Your task to perform on an android device: Go to calendar. Show me events next week Image 0: 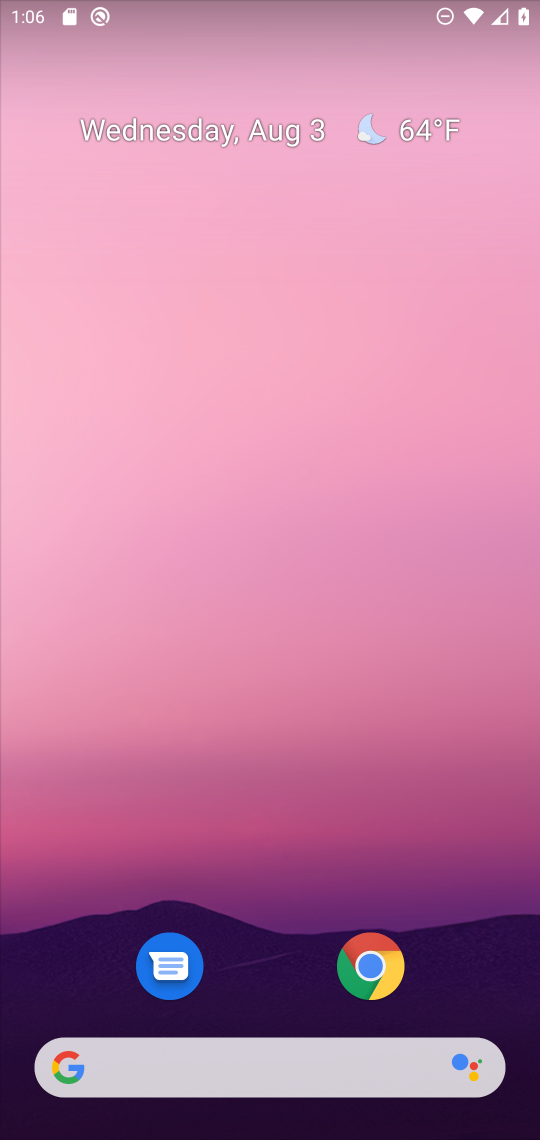
Step 0: drag from (245, 787) to (274, 63)
Your task to perform on an android device: Go to calendar. Show me events next week Image 1: 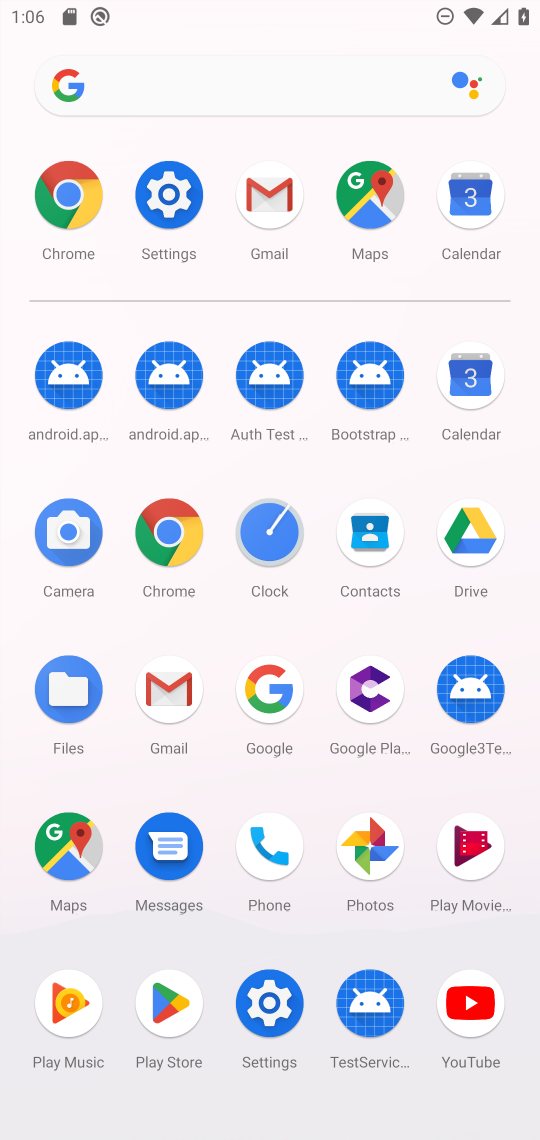
Step 1: click (482, 221)
Your task to perform on an android device: Go to calendar. Show me events next week Image 2: 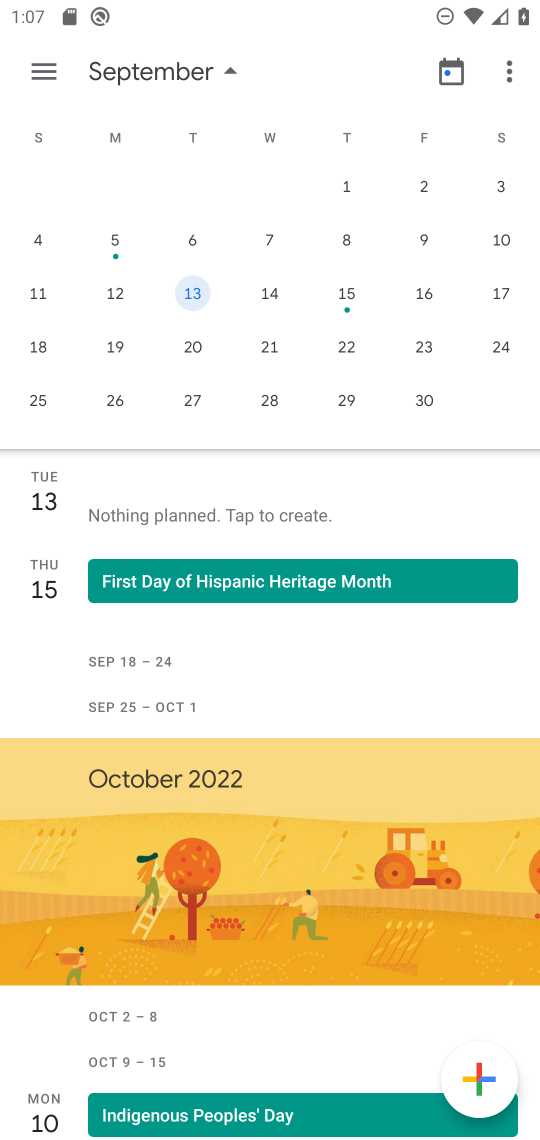
Step 2: drag from (107, 300) to (510, 306)
Your task to perform on an android device: Go to calendar. Show me events next week Image 3: 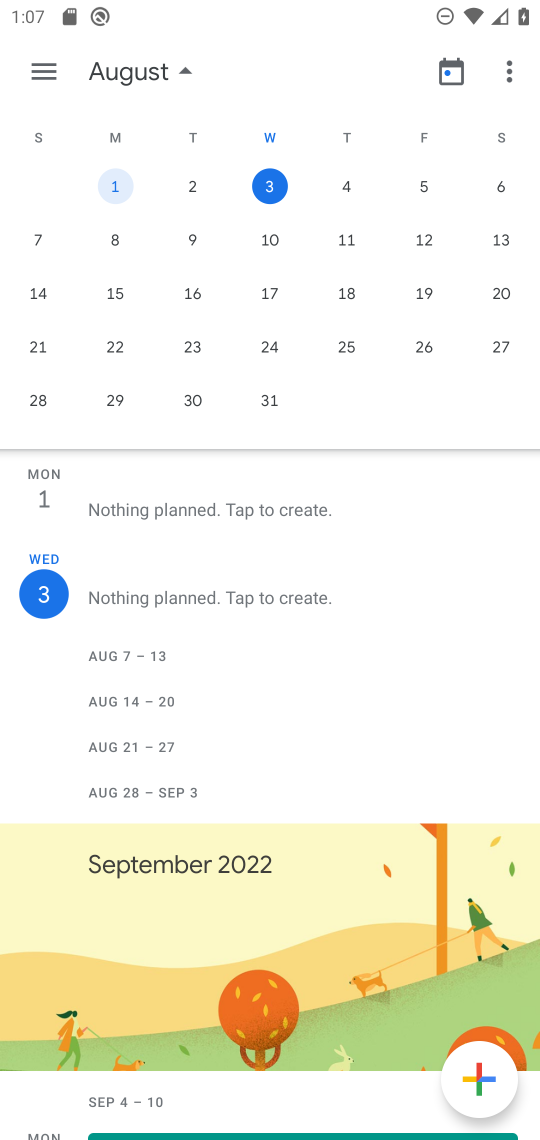
Step 3: click (29, 244)
Your task to perform on an android device: Go to calendar. Show me events next week Image 4: 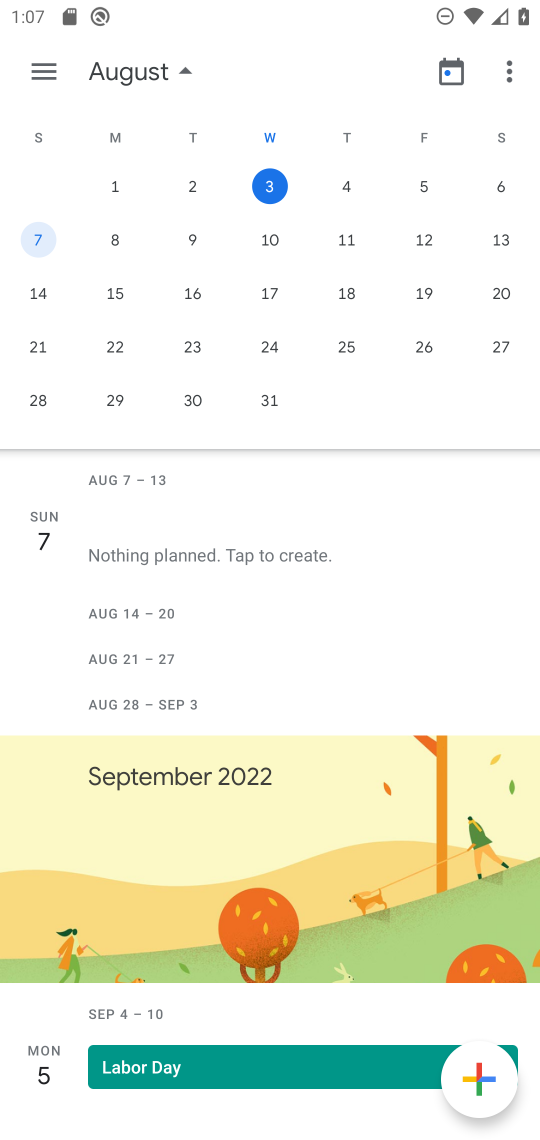
Step 4: task complete